Your task to perform on an android device: create a new album in the google photos Image 0: 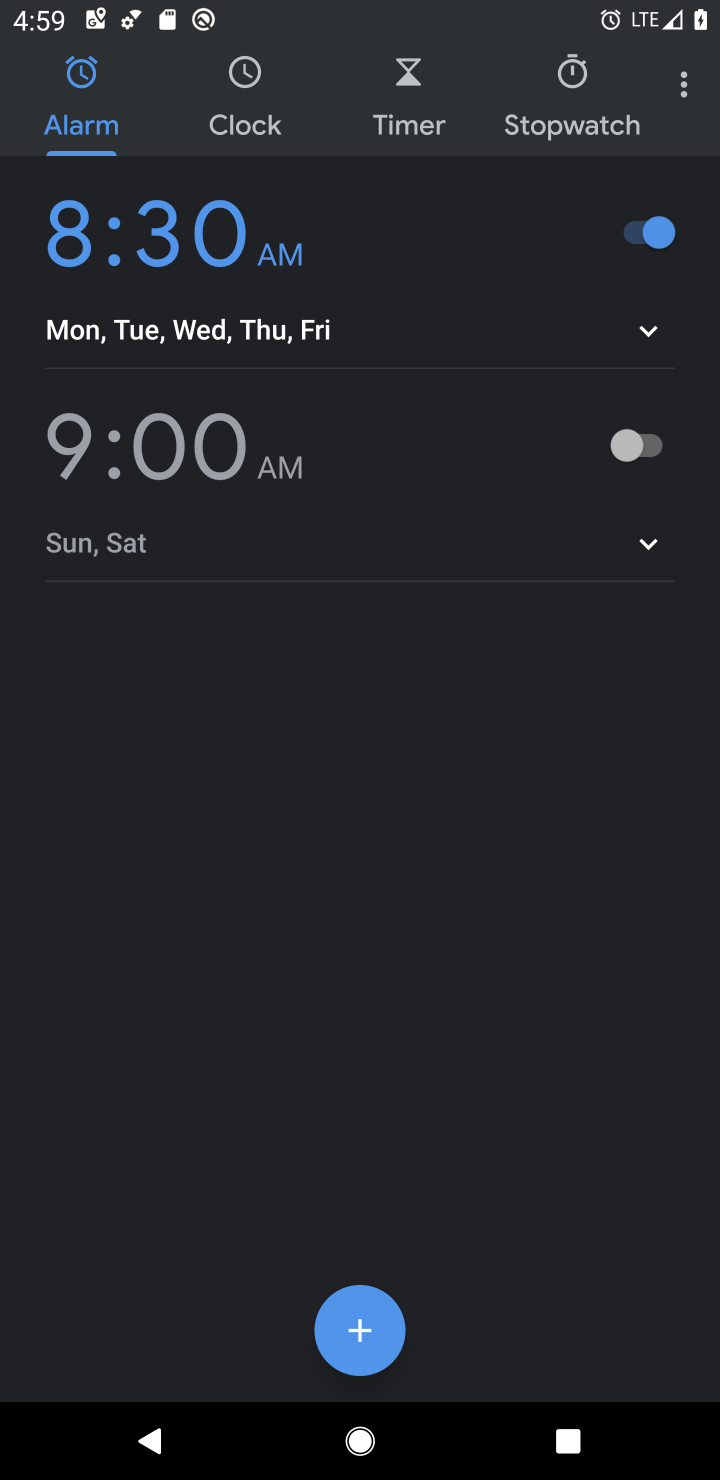
Step 0: press home button
Your task to perform on an android device: create a new album in the google photos Image 1: 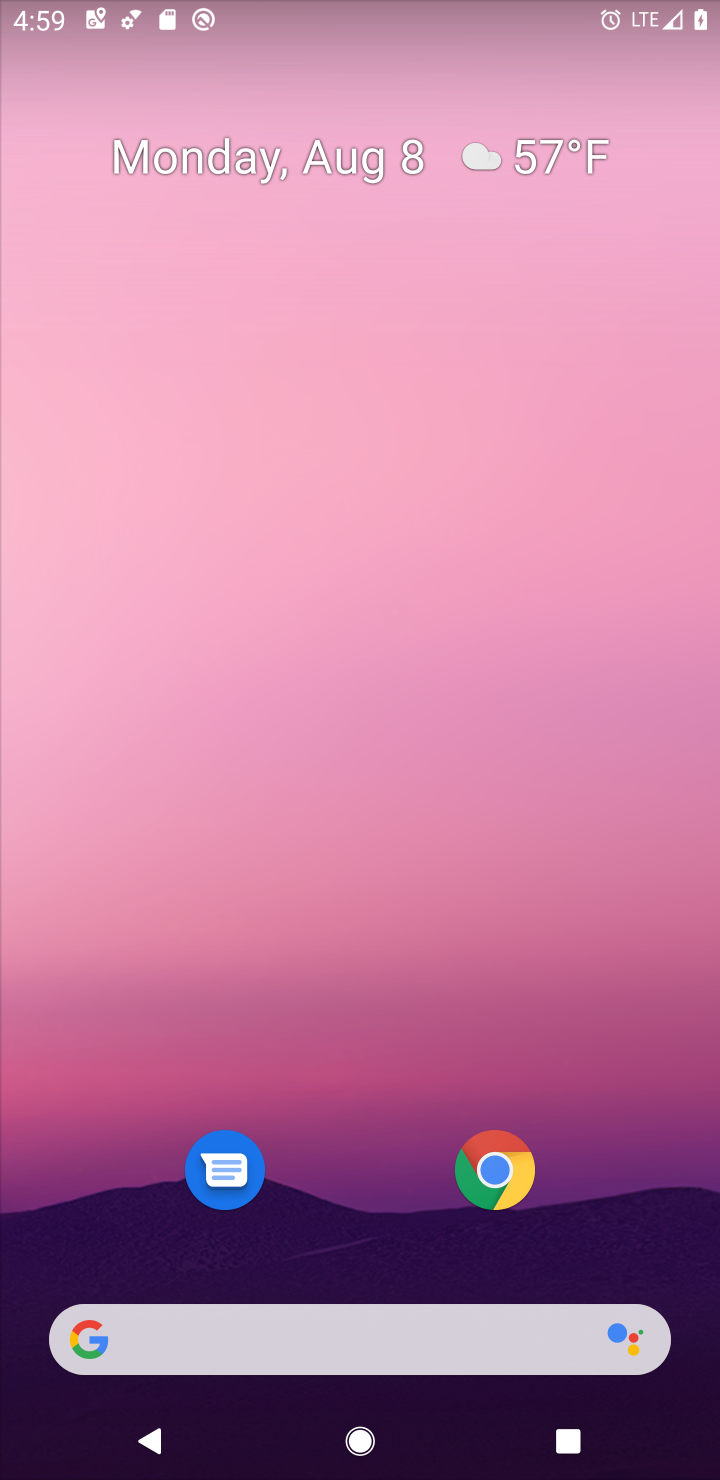
Step 1: drag from (376, 1148) to (356, 168)
Your task to perform on an android device: create a new album in the google photos Image 2: 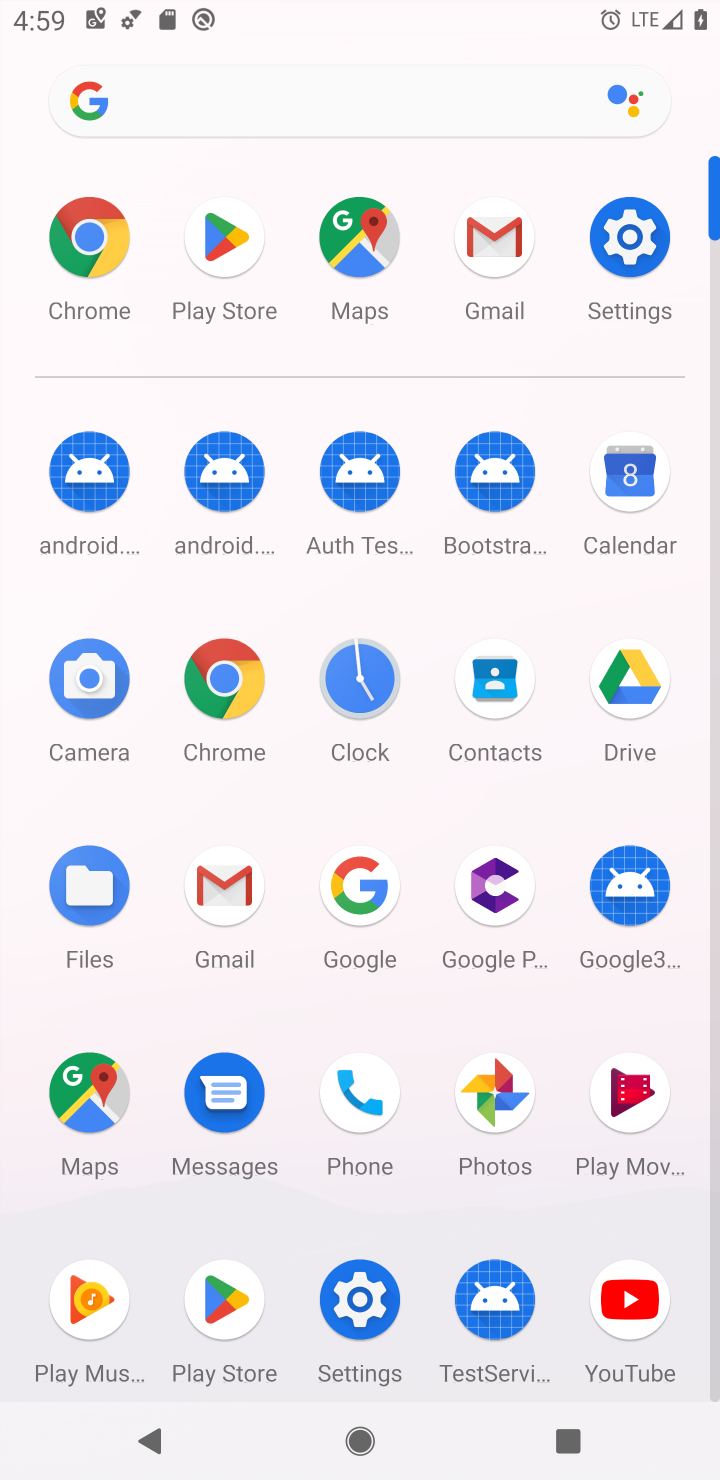
Step 2: click (499, 1121)
Your task to perform on an android device: create a new album in the google photos Image 3: 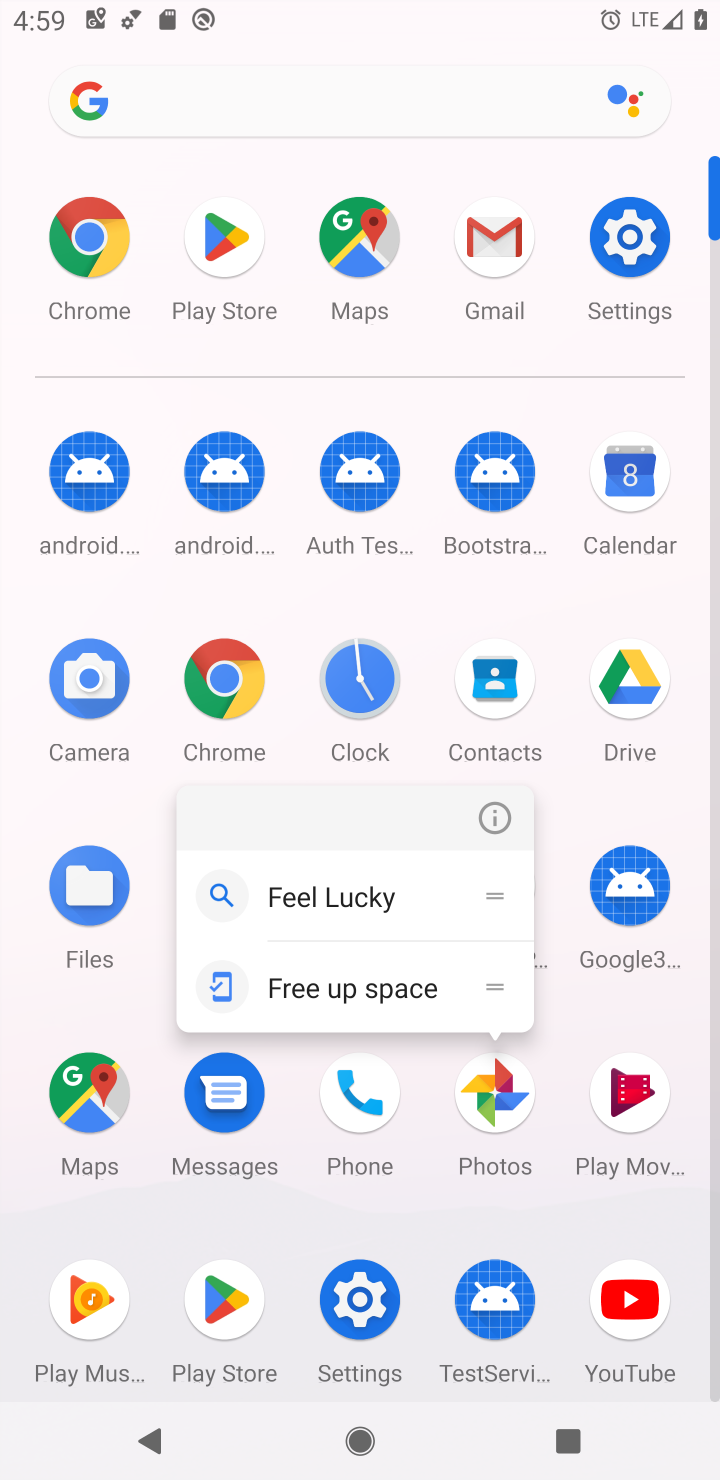
Step 3: click (525, 1089)
Your task to perform on an android device: create a new album in the google photos Image 4: 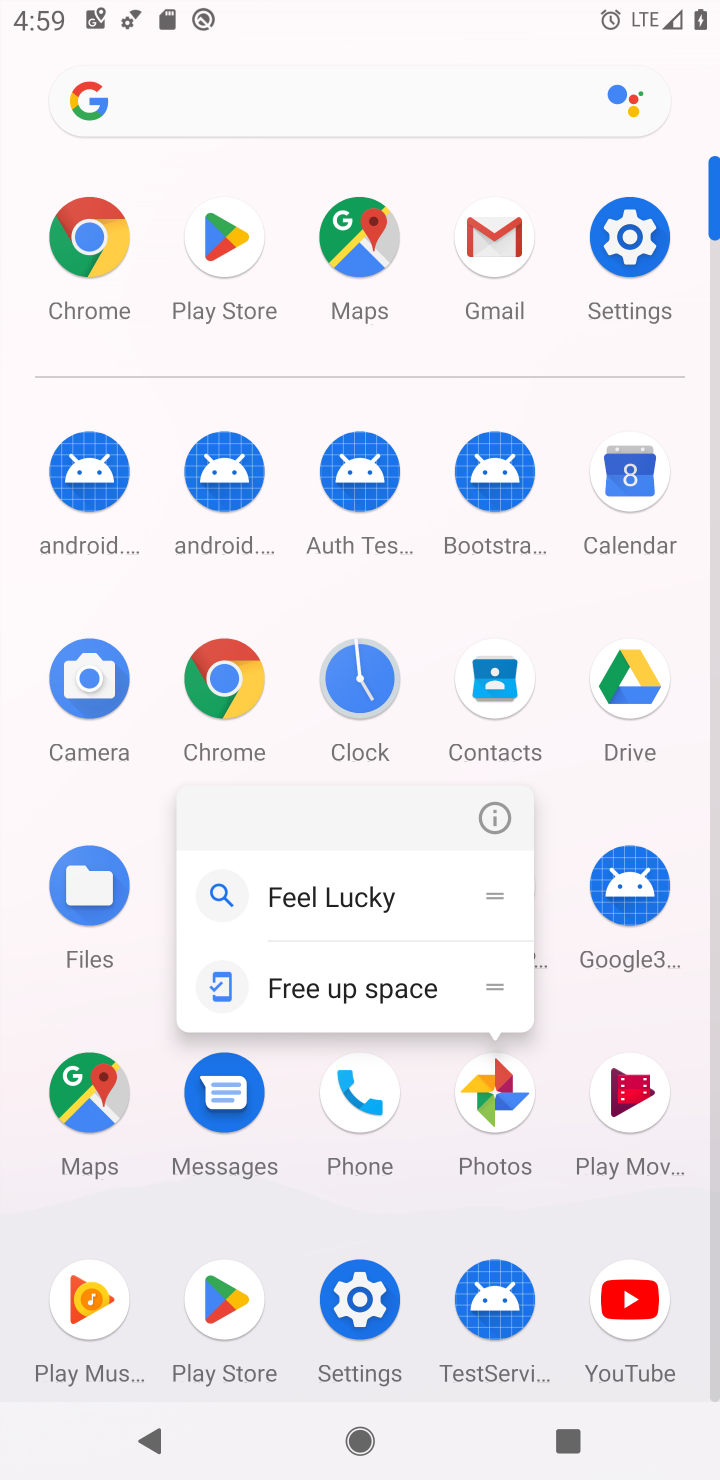
Step 4: click (525, 1089)
Your task to perform on an android device: create a new album in the google photos Image 5: 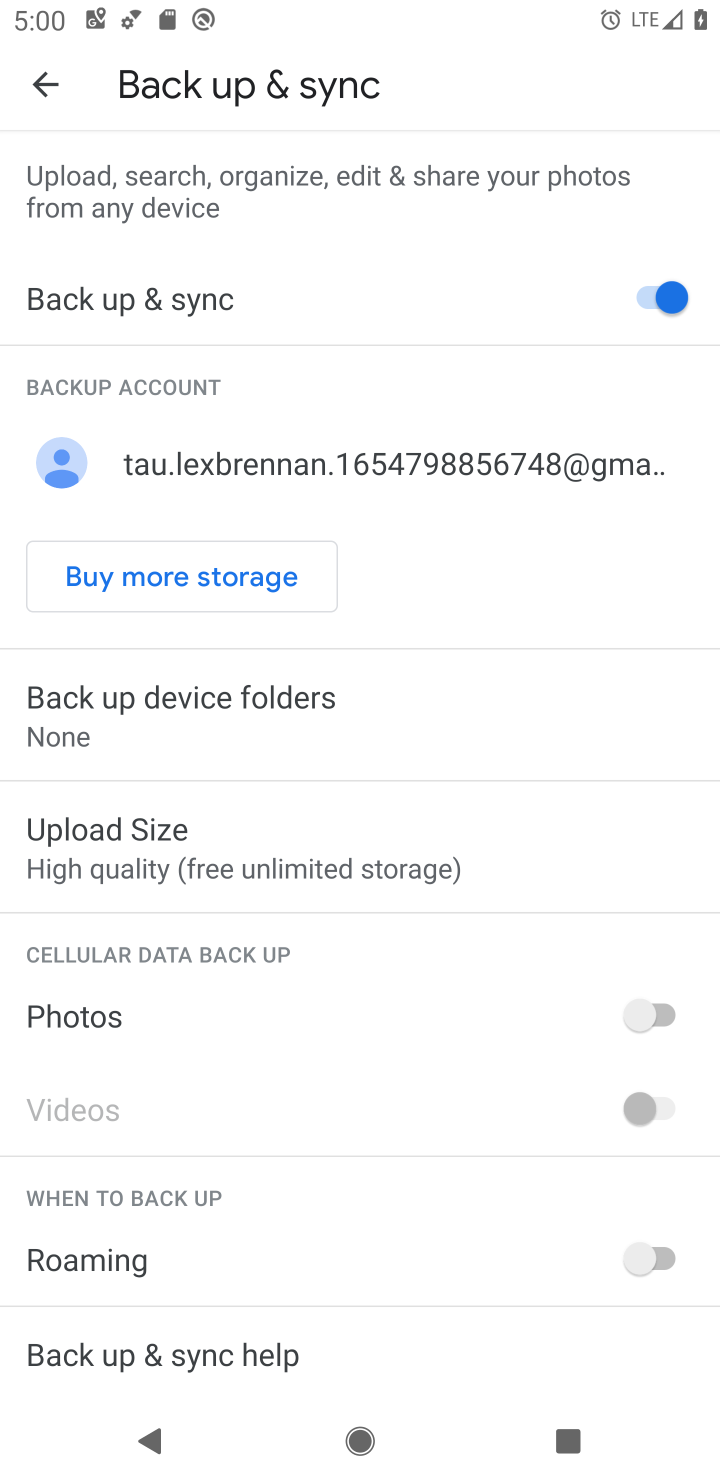
Step 5: click (53, 82)
Your task to perform on an android device: create a new album in the google photos Image 6: 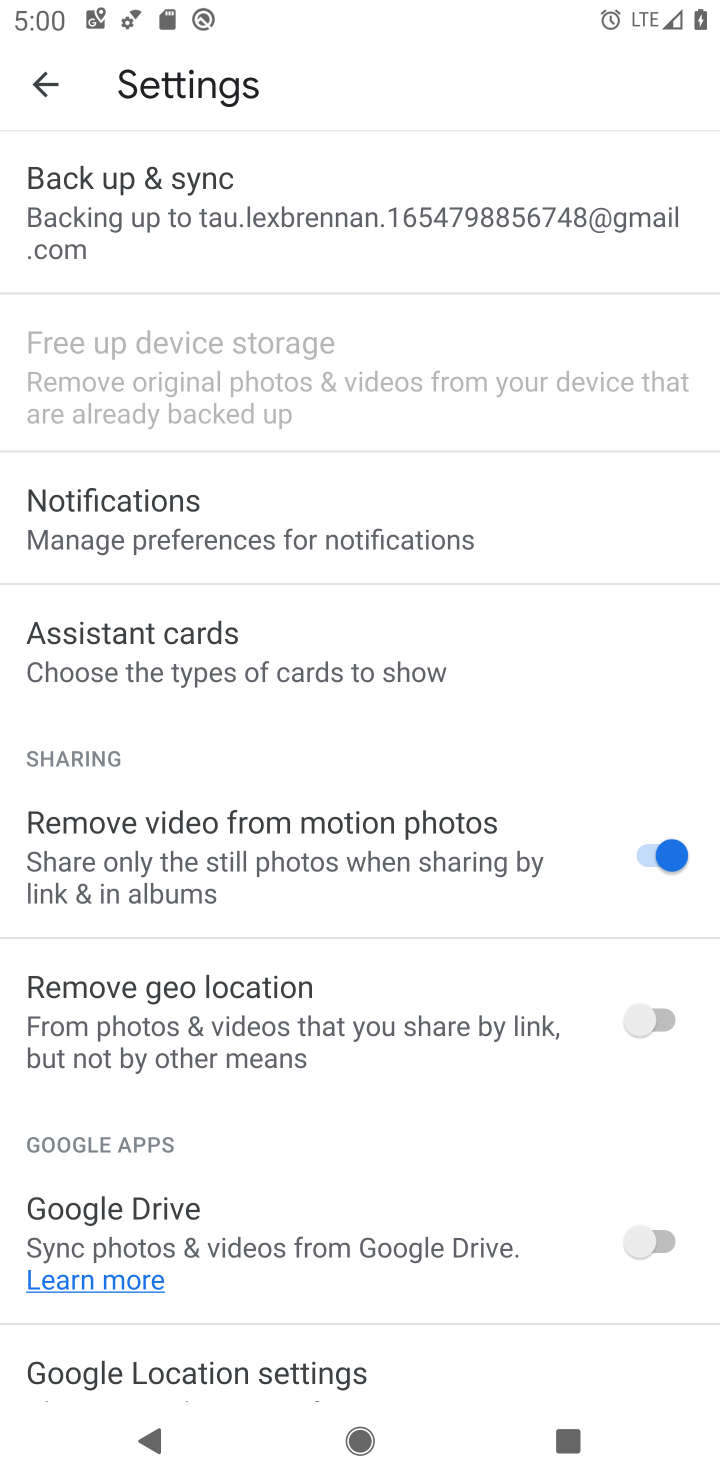
Step 6: click (65, 98)
Your task to perform on an android device: create a new album in the google photos Image 7: 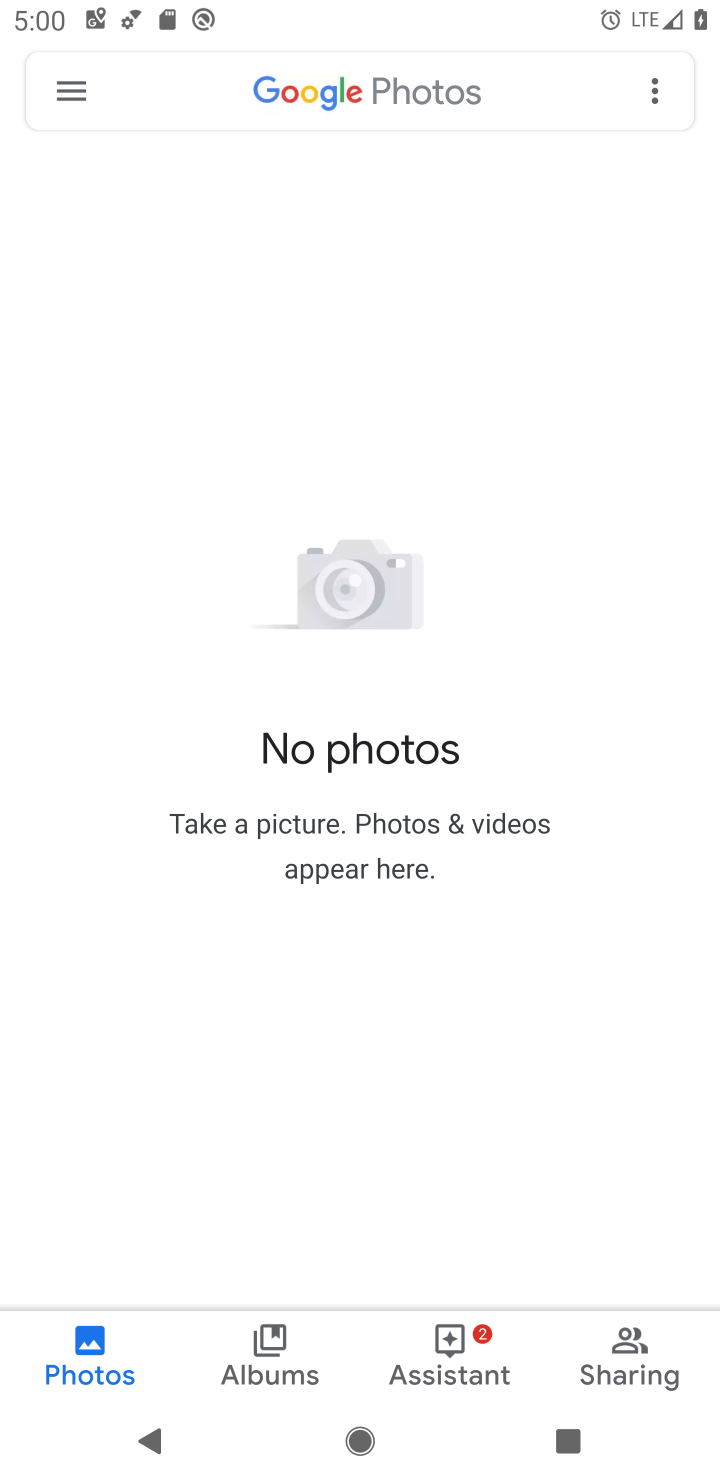
Step 7: click (280, 85)
Your task to perform on an android device: create a new album in the google photos Image 8: 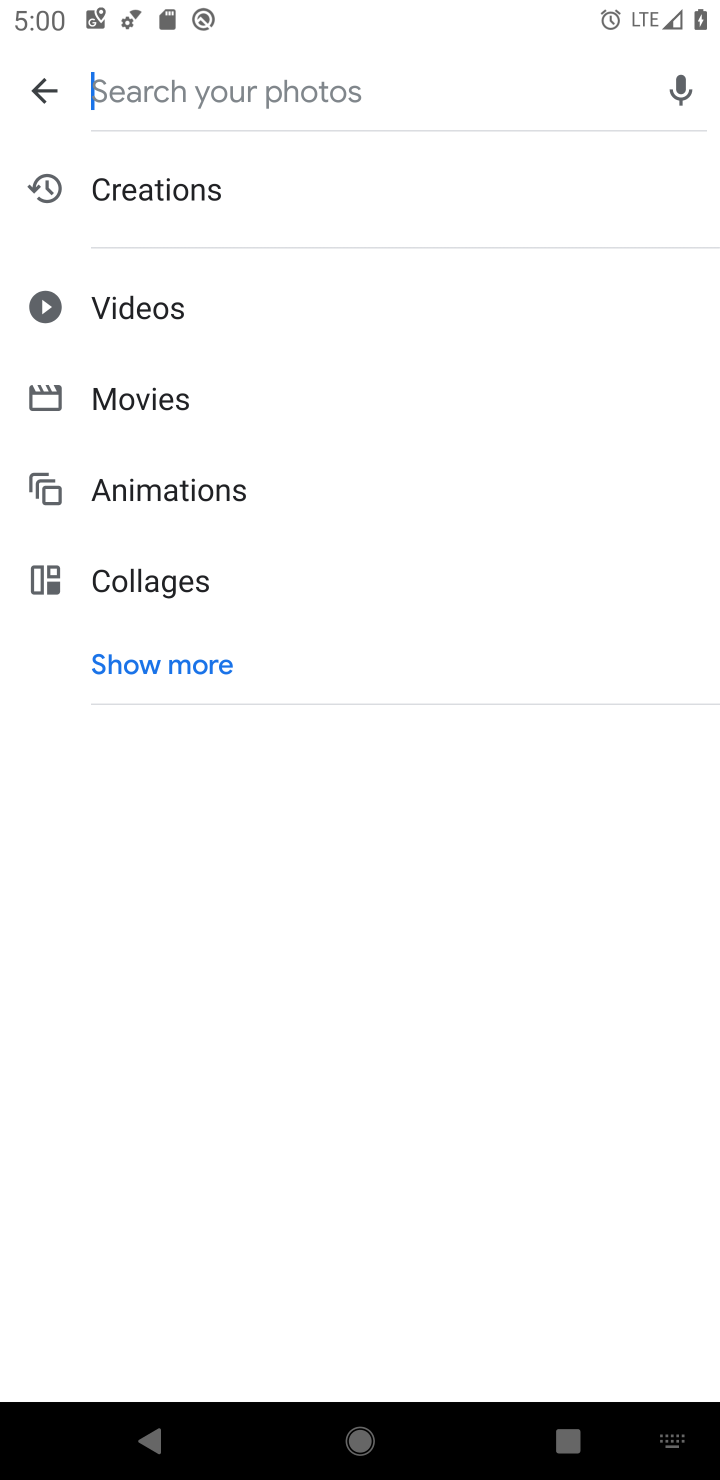
Step 8: click (41, 76)
Your task to perform on an android device: create a new album in the google photos Image 9: 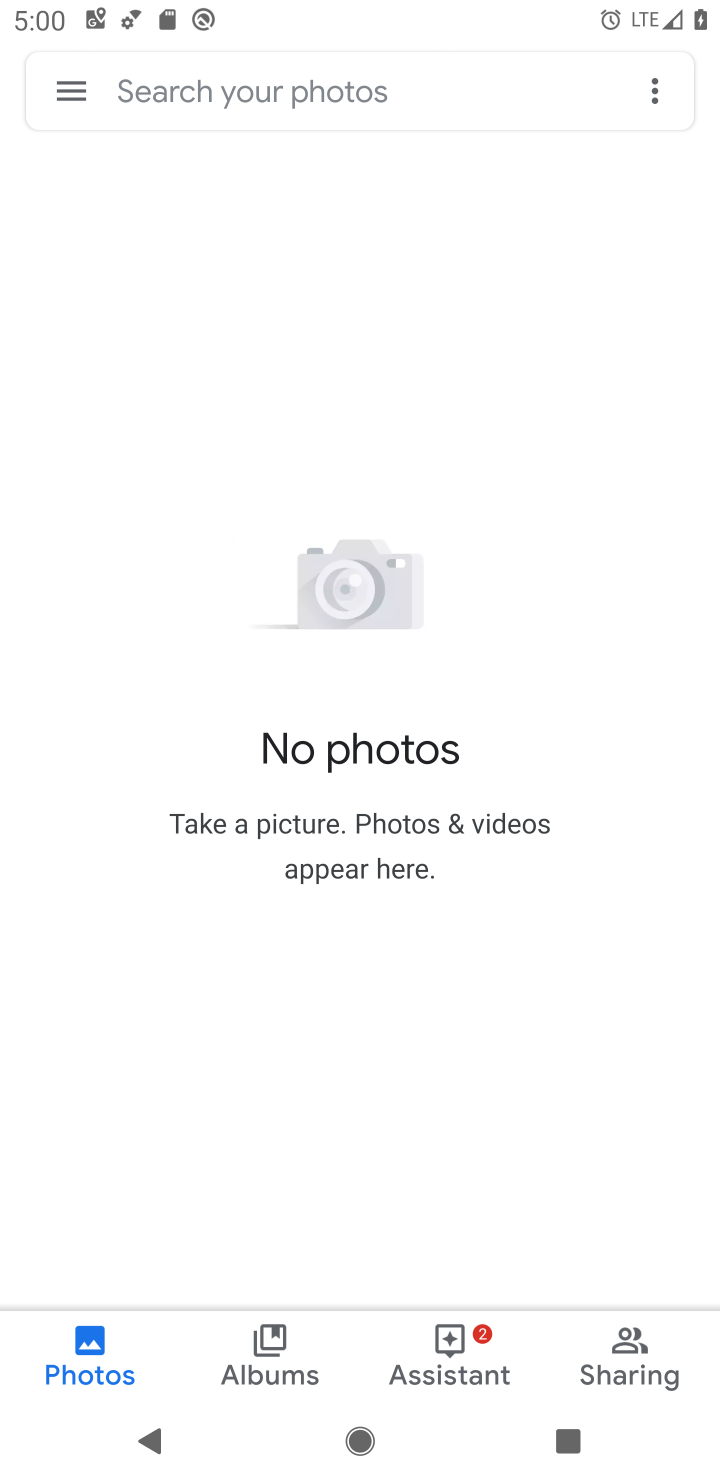
Step 9: click (658, 81)
Your task to perform on an android device: create a new album in the google photos Image 10: 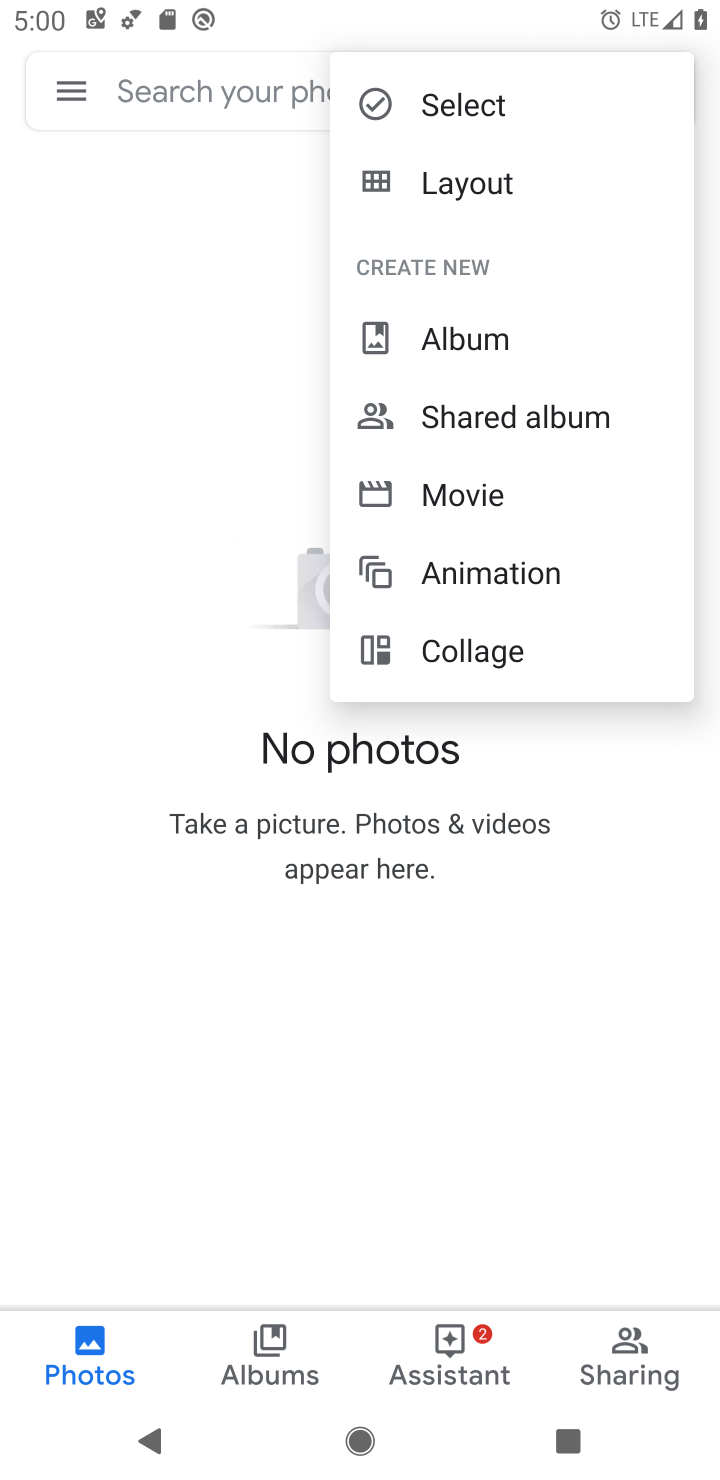
Step 10: click (503, 344)
Your task to perform on an android device: create a new album in the google photos Image 11: 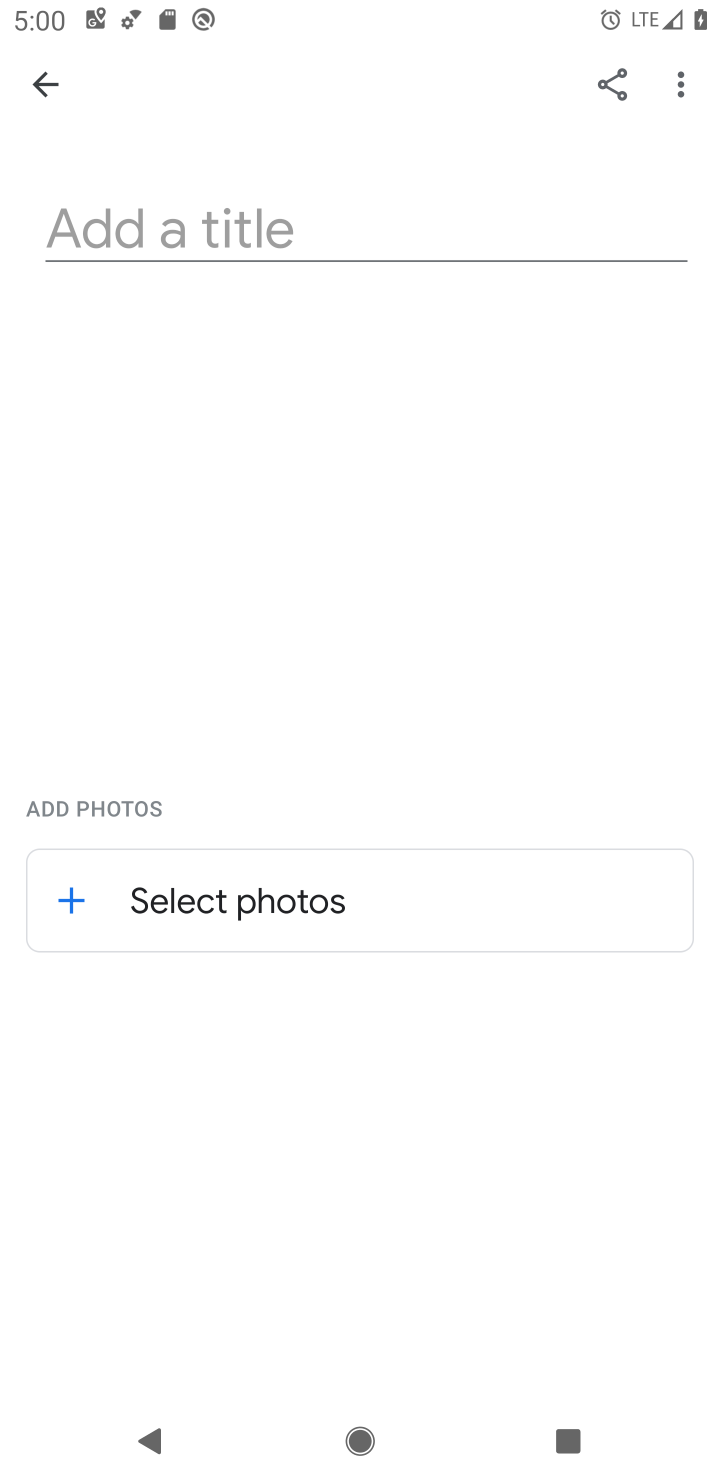
Step 11: click (142, 236)
Your task to perform on an android device: create a new album in the google photos Image 12: 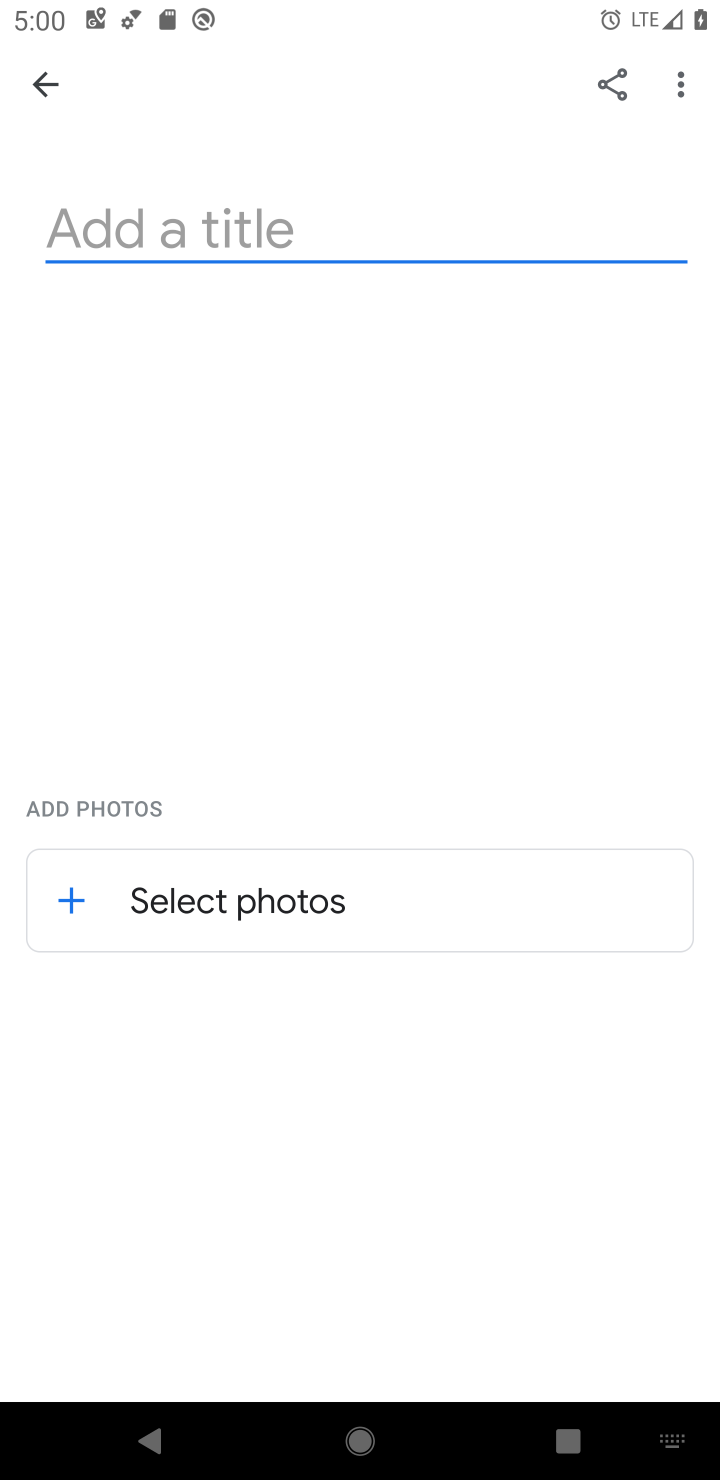
Step 12: type "tfhfhfgdftj"
Your task to perform on an android device: create a new album in the google photos Image 13: 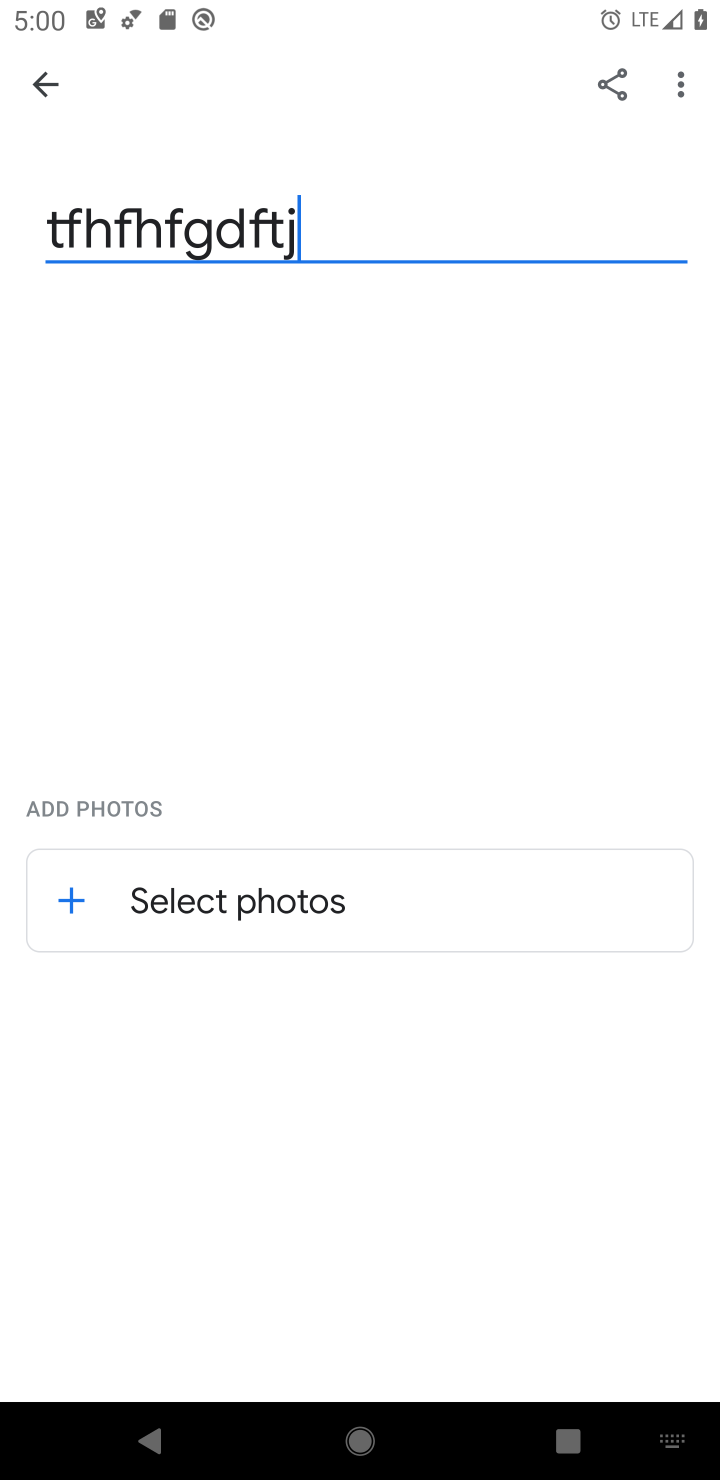
Step 13: click (72, 892)
Your task to perform on an android device: create a new album in the google photos Image 14: 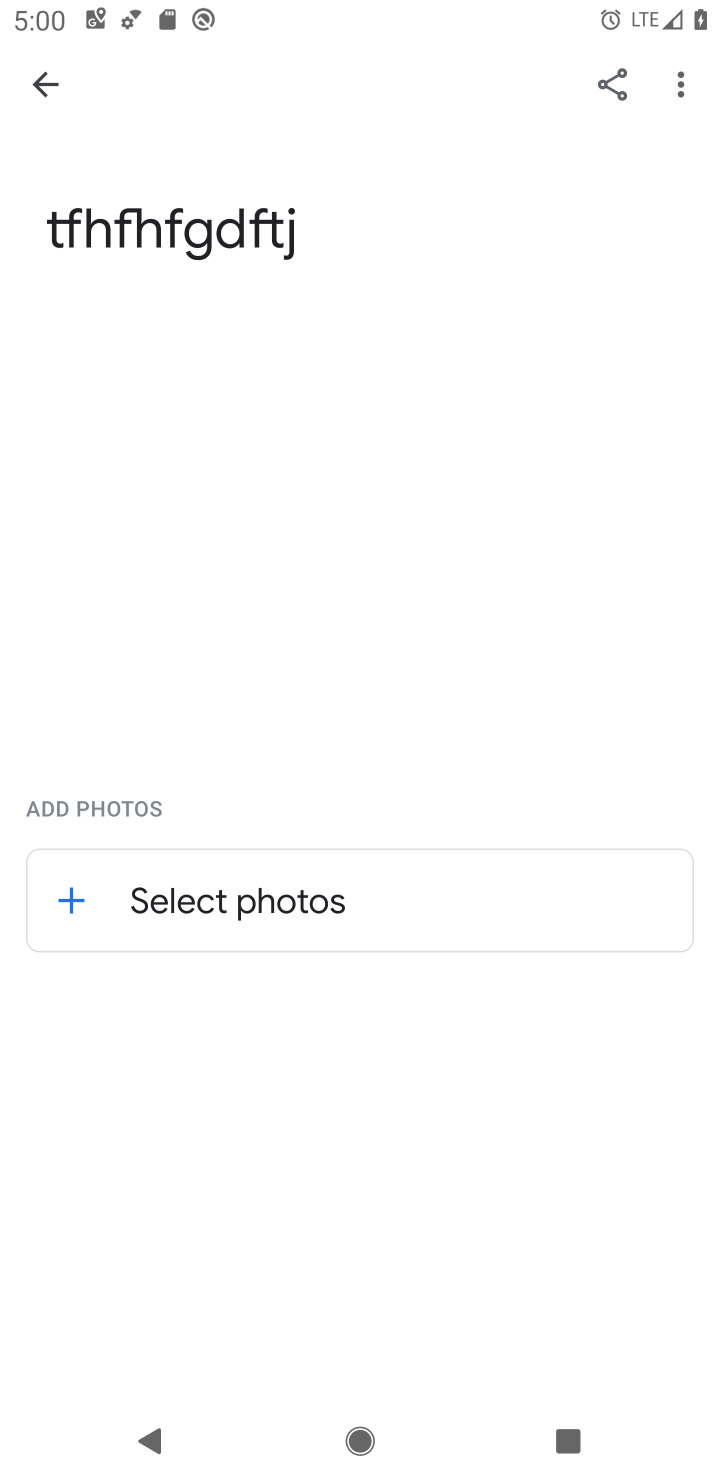
Step 14: click (67, 905)
Your task to perform on an android device: create a new album in the google photos Image 15: 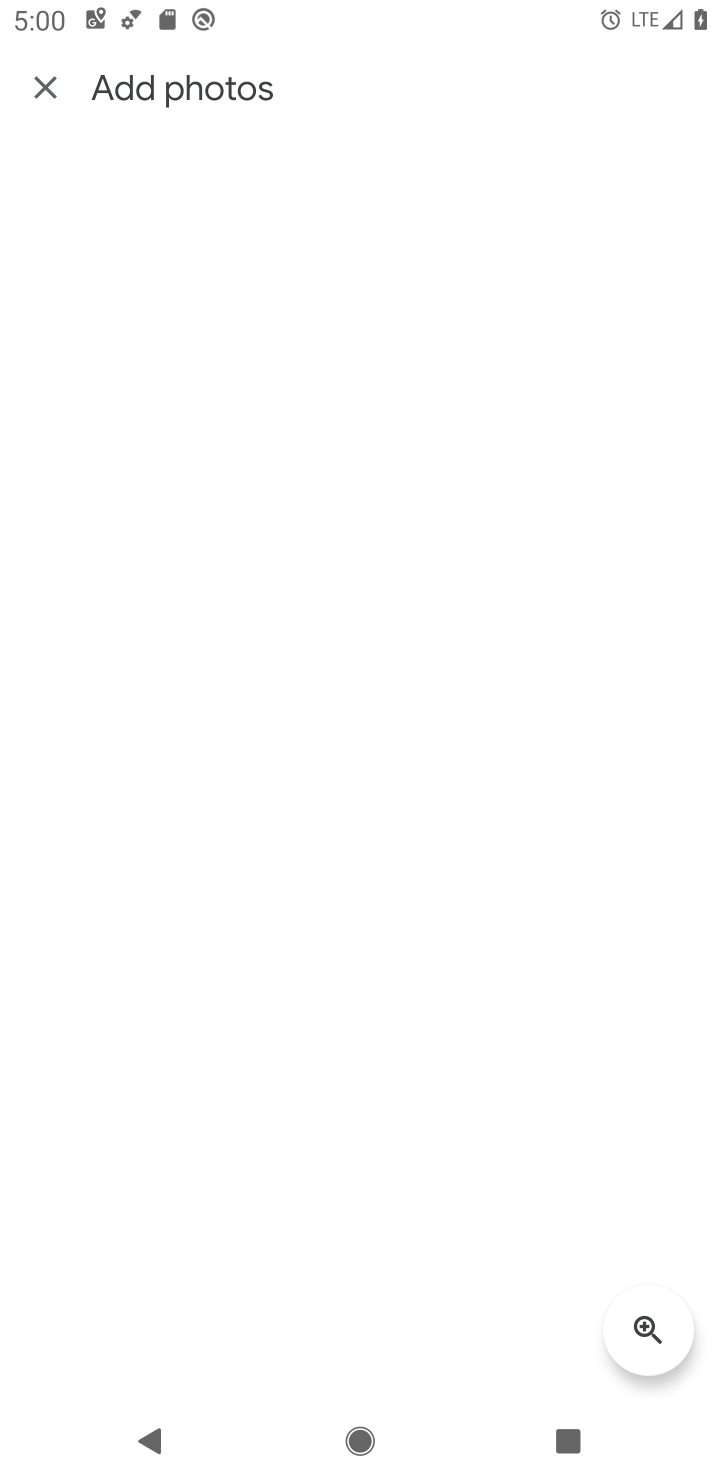
Step 15: task complete